Your task to perform on an android device: turn on the 12-hour format for clock Image 0: 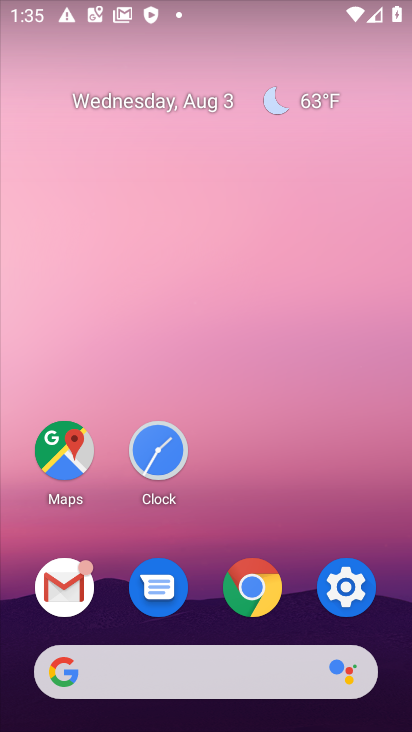
Step 0: click (161, 445)
Your task to perform on an android device: turn on the 12-hour format for clock Image 1: 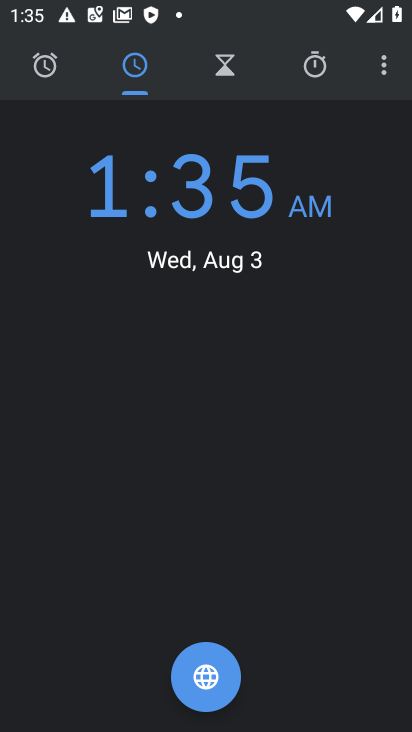
Step 1: click (389, 54)
Your task to perform on an android device: turn on the 12-hour format for clock Image 2: 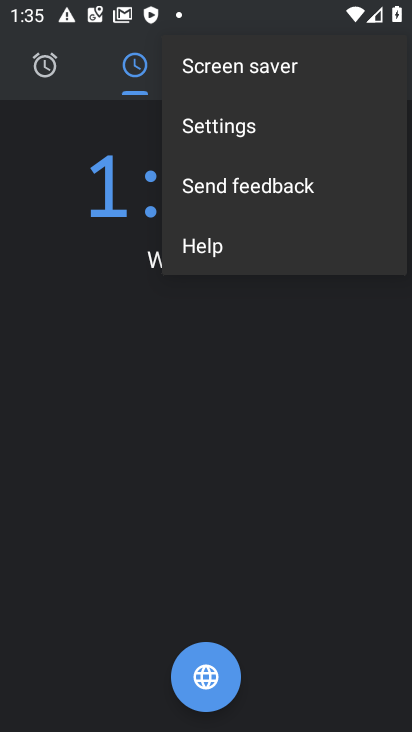
Step 2: click (237, 117)
Your task to perform on an android device: turn on the 12-hour format for clock Image 3: 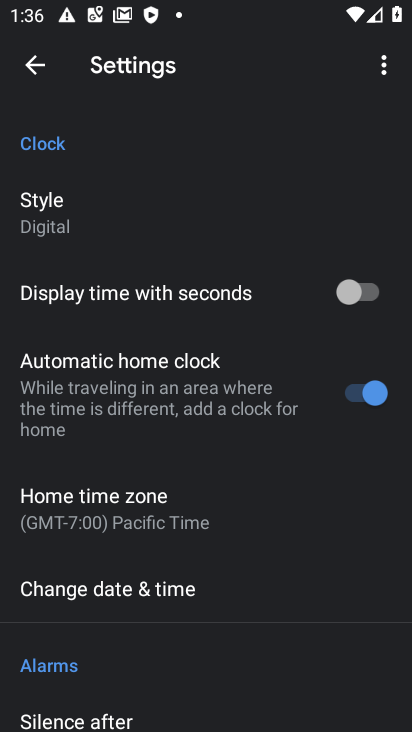
Step 3: click (126, 588)
Your task to perform on an android device: turn on the 12-hour format for clock Image 4: 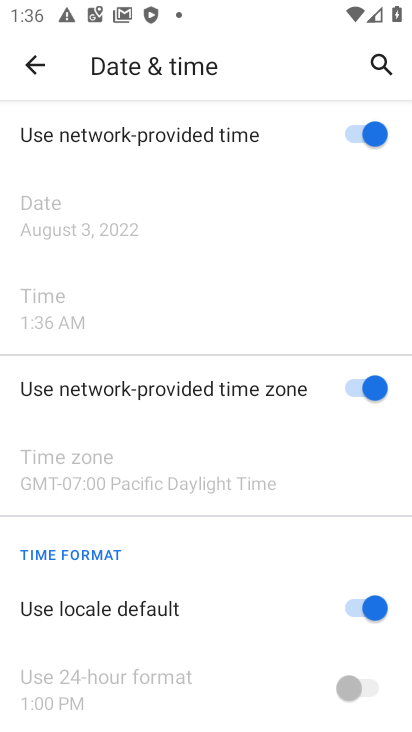
Step 4: click (129, 584)
Your task to perform on an android device: turn on the 12-hour format for clock Image 5: 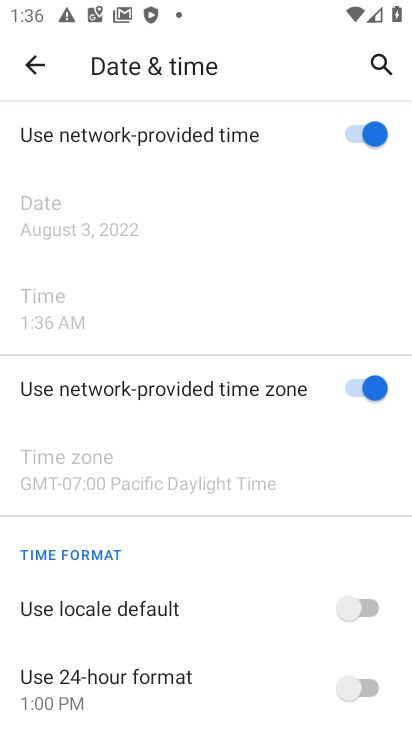
Step 5: click (366, 602)
Your task to perform on an android device: turn on the 12-hour format for clock Image 6: 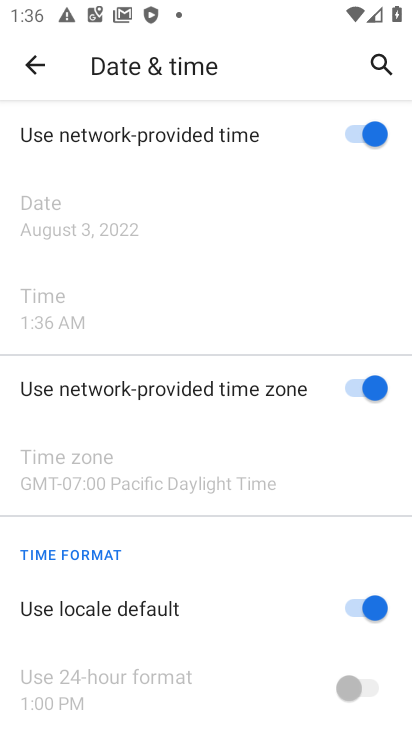
Step 6: task complete